Your task to perform on an android device: Open notification settings Image 0: 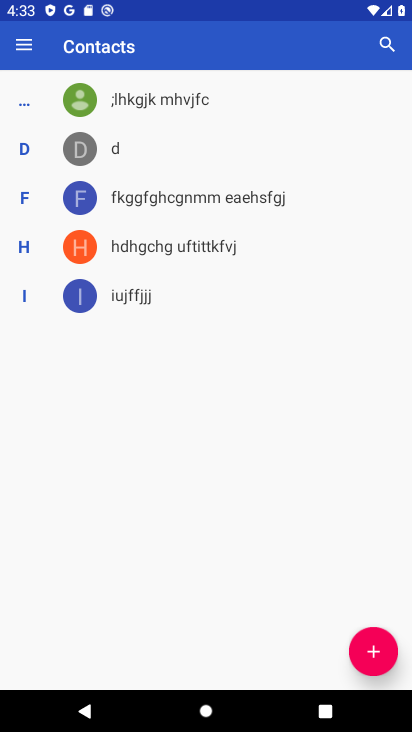
Step 0: click (215, 17)
Your task to perform on an android device: Open notification settings Image 1: 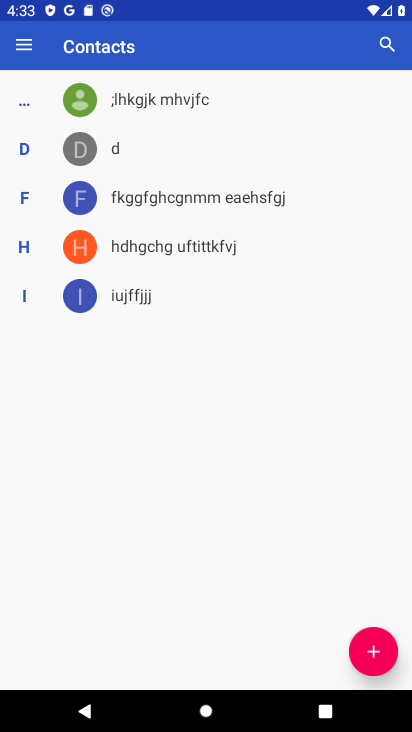
Step 1: press home button
Your task to perform on an android device: Open notification settings Image 2: 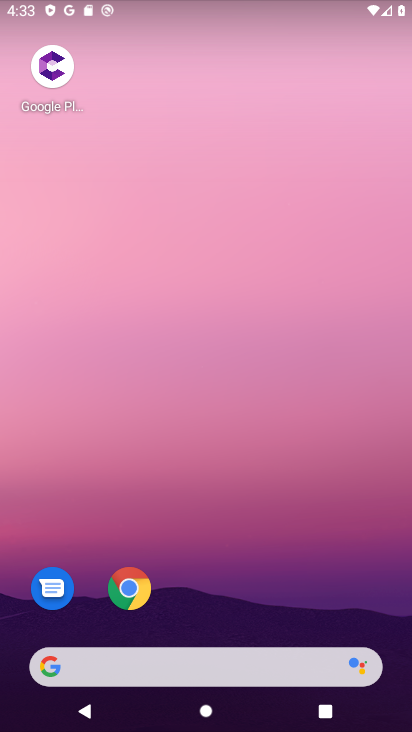
Step 2: drag from (278, 595) to (250, 97)
Your task to perform on an android device: Open notification settings Image 3: 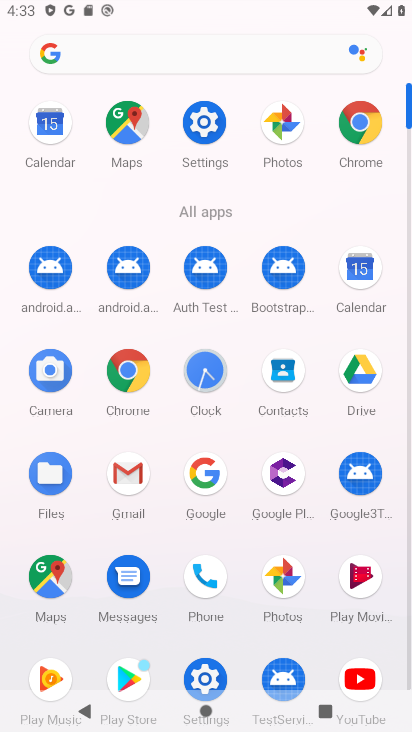
Step 3: click (195, 115)
Your task to perform on an android device: Open notification settings Image 4: 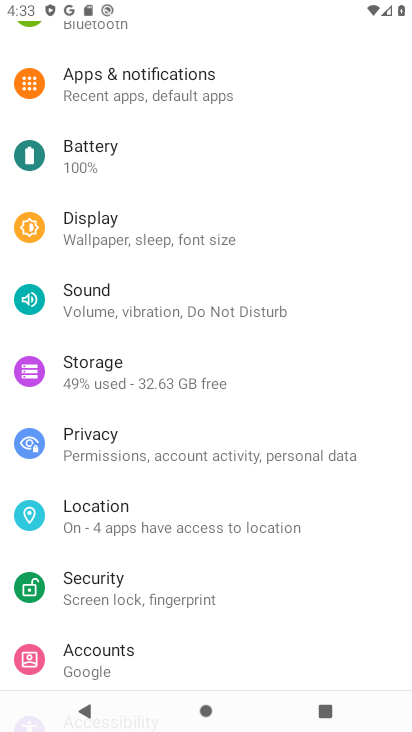
Step 4: click (104, 77)
Your task to perform on an android device: Open notification settings Image 5: 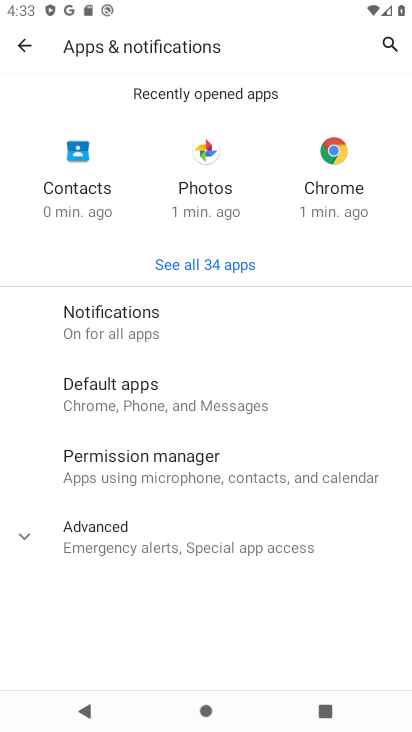
Step 5: click (124, 333)
Your task to perform on an android device: Open notification settings Image 6: 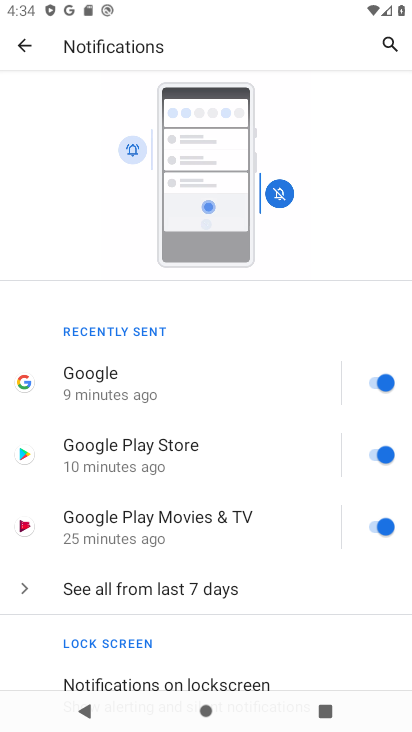
Step 6: task complete